Your task to perform on an android device: Open the Play Movies app and select the watchlist tab. Image 0: 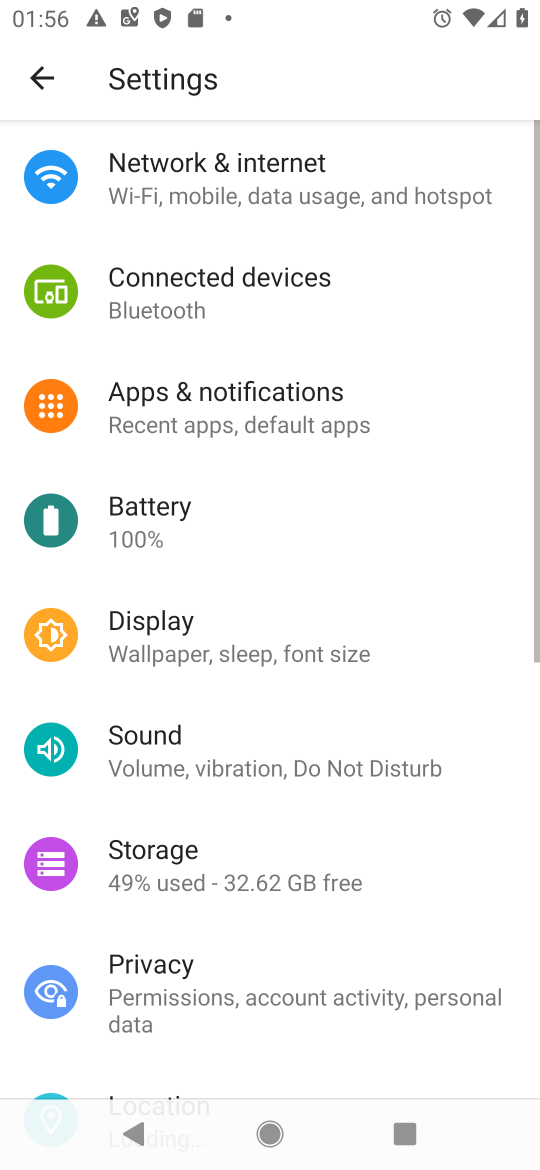
Step 0: press home button
Your task to perform on an android device: Open the Play Movies app and select the watchlist tab. Image 1: 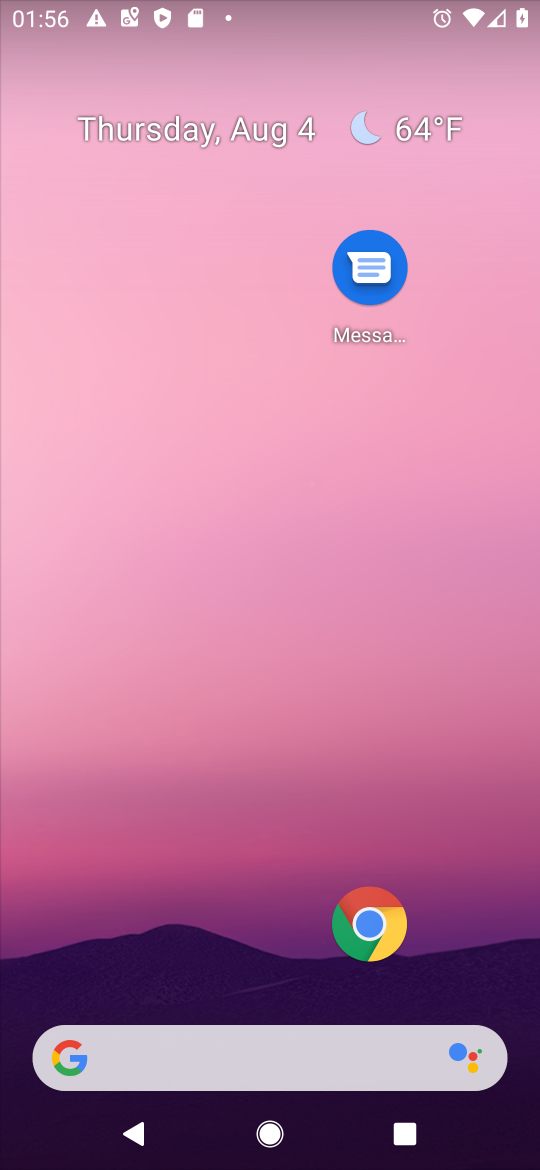
Step 1: drag from (46, 1085) to (111, 191)
Your task to perform on an android device: Open the Play Movies app and select the watchlist tab. Image 2: 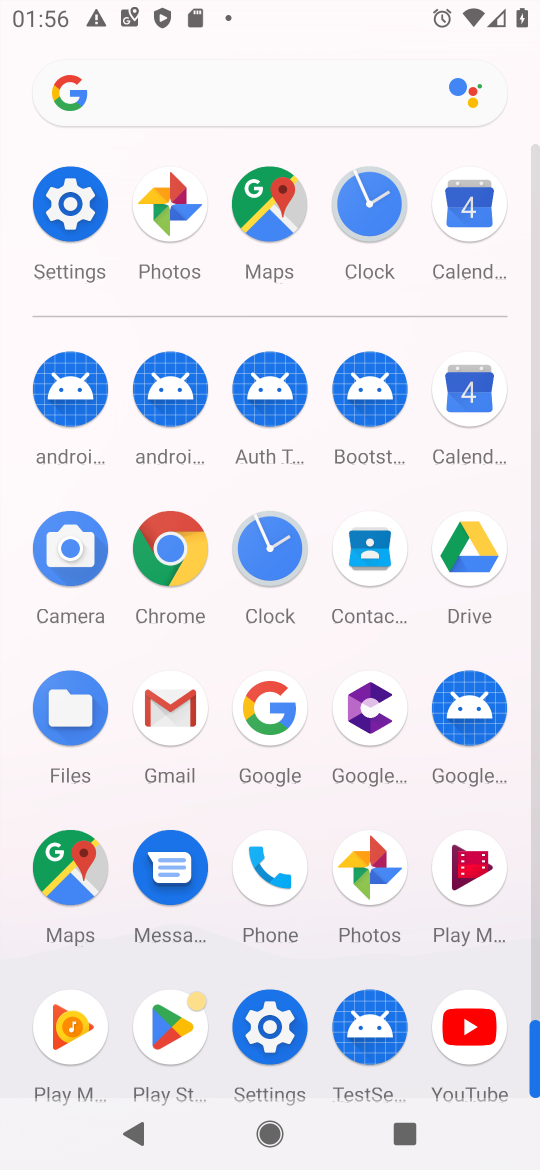
Step 2: click (454, 875)
Your task to perform on an android device: Open the Play Movies app and select the watchlist tab. Image 3: 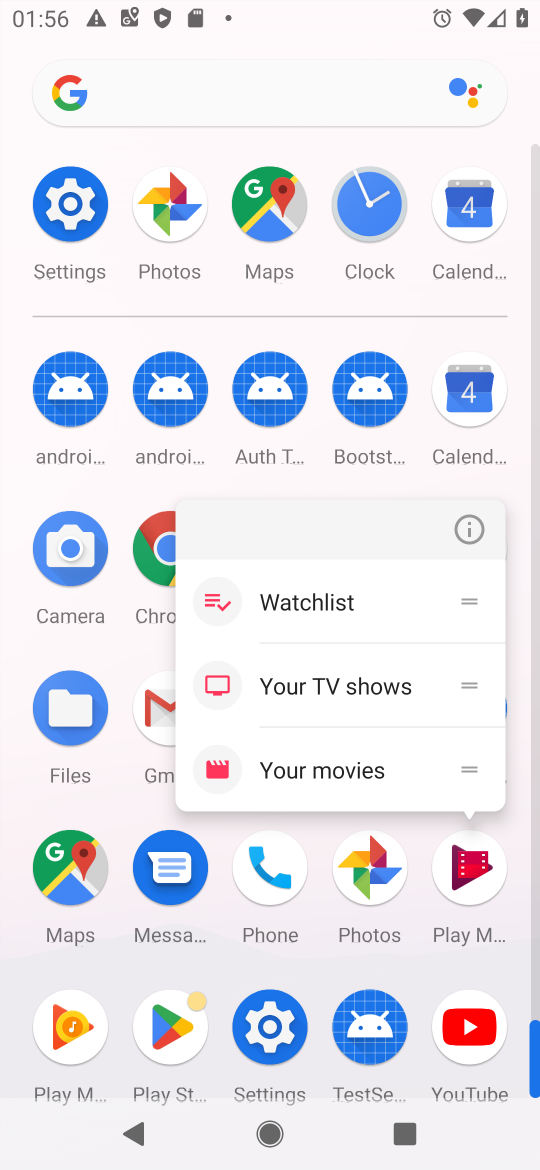
Step 3: click (470, 877)
Your task to perform on an android device: Open the Play Movies app and select the watchlist tab. Image 4: 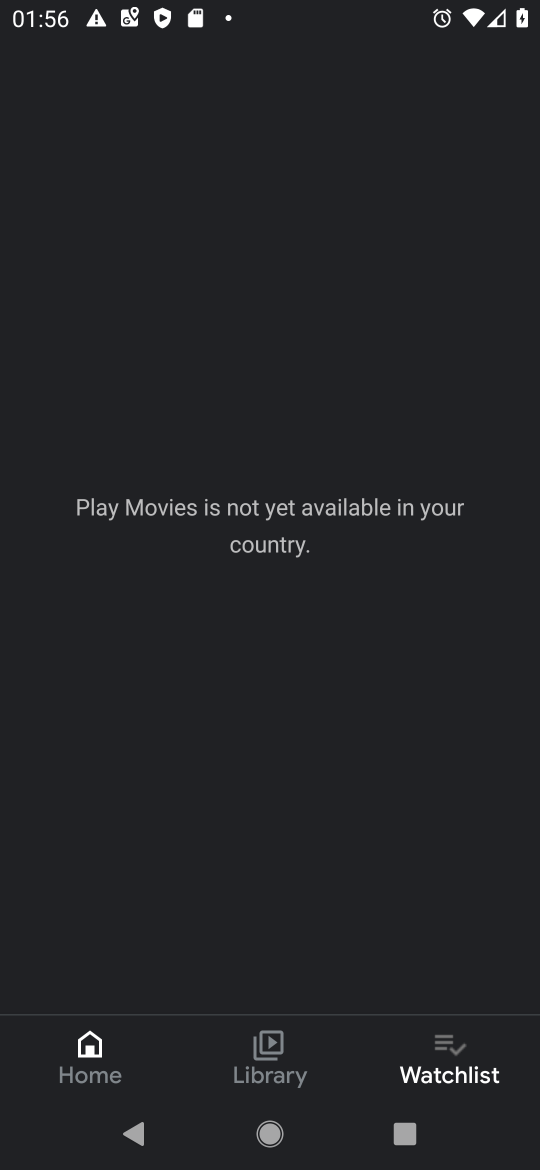
Step 4: click (443, 1066)
Your task to perform on an android device: Open the Play Movies app and select the watchlist tab. Image 5: 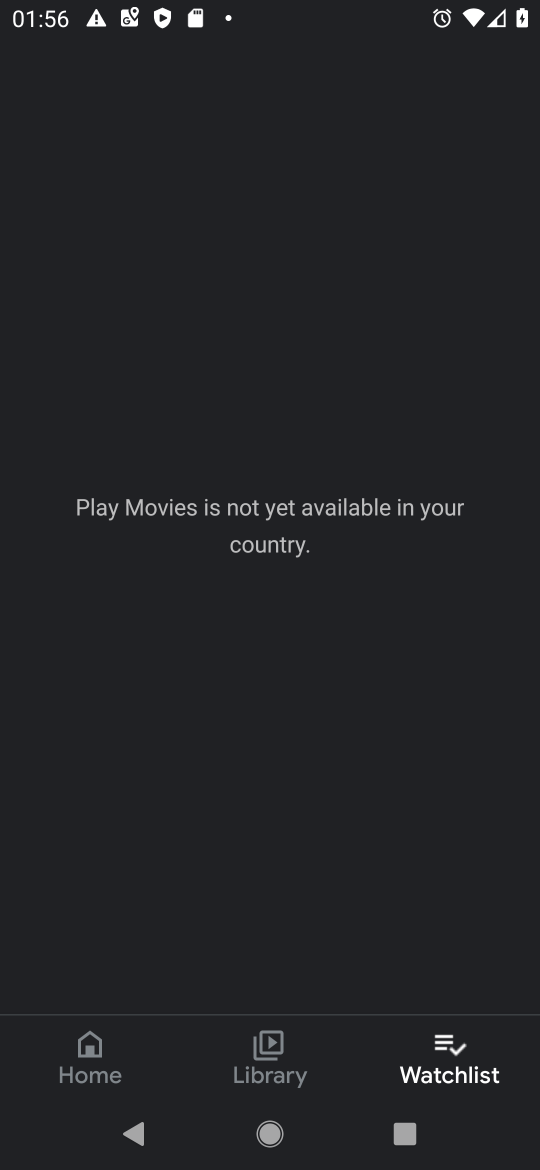
Step 5: task complete